Your task to perform on an android device: open app "File Manager" (install if not already installed) Image 0: 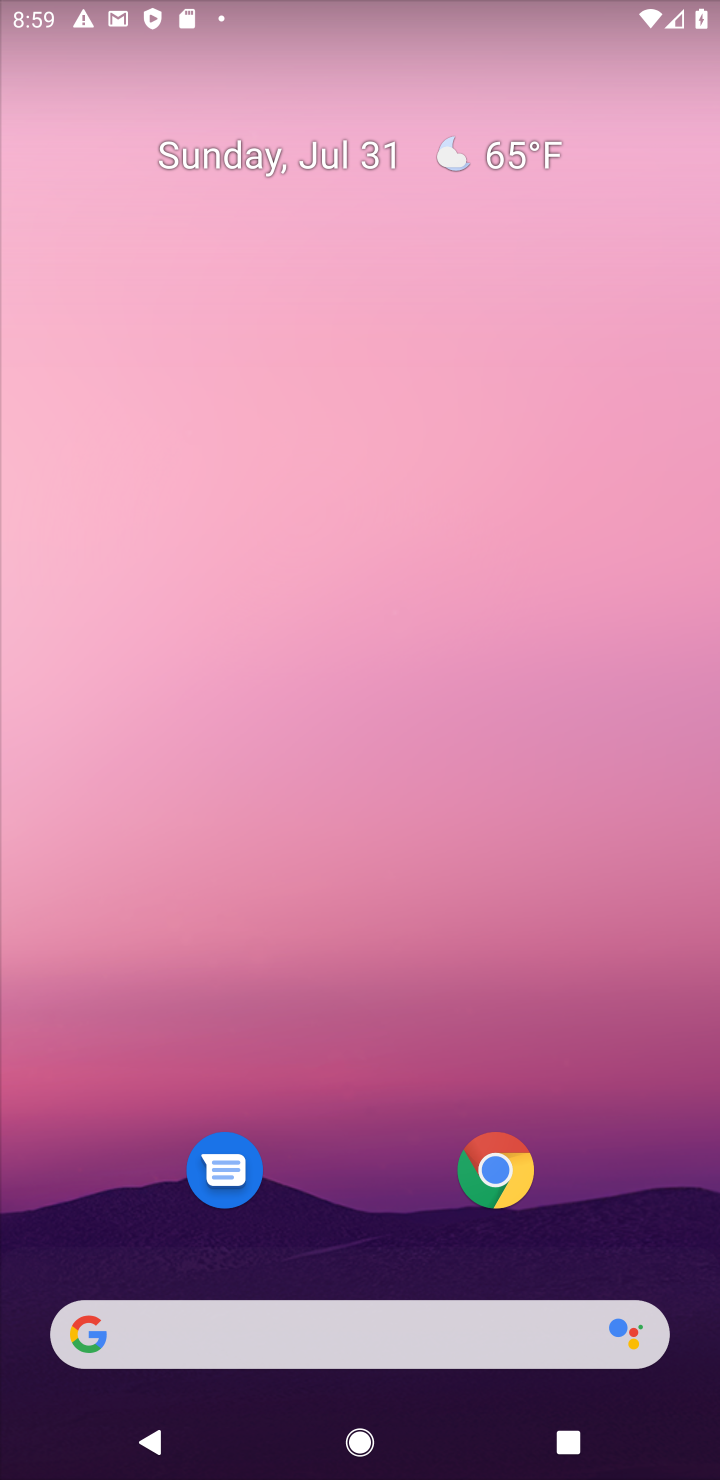
Step 0: drag from (395, 1272) to (598, 102)
Your task to perform on an android device: open app "File Manager" (install if not already installed) Image 1: 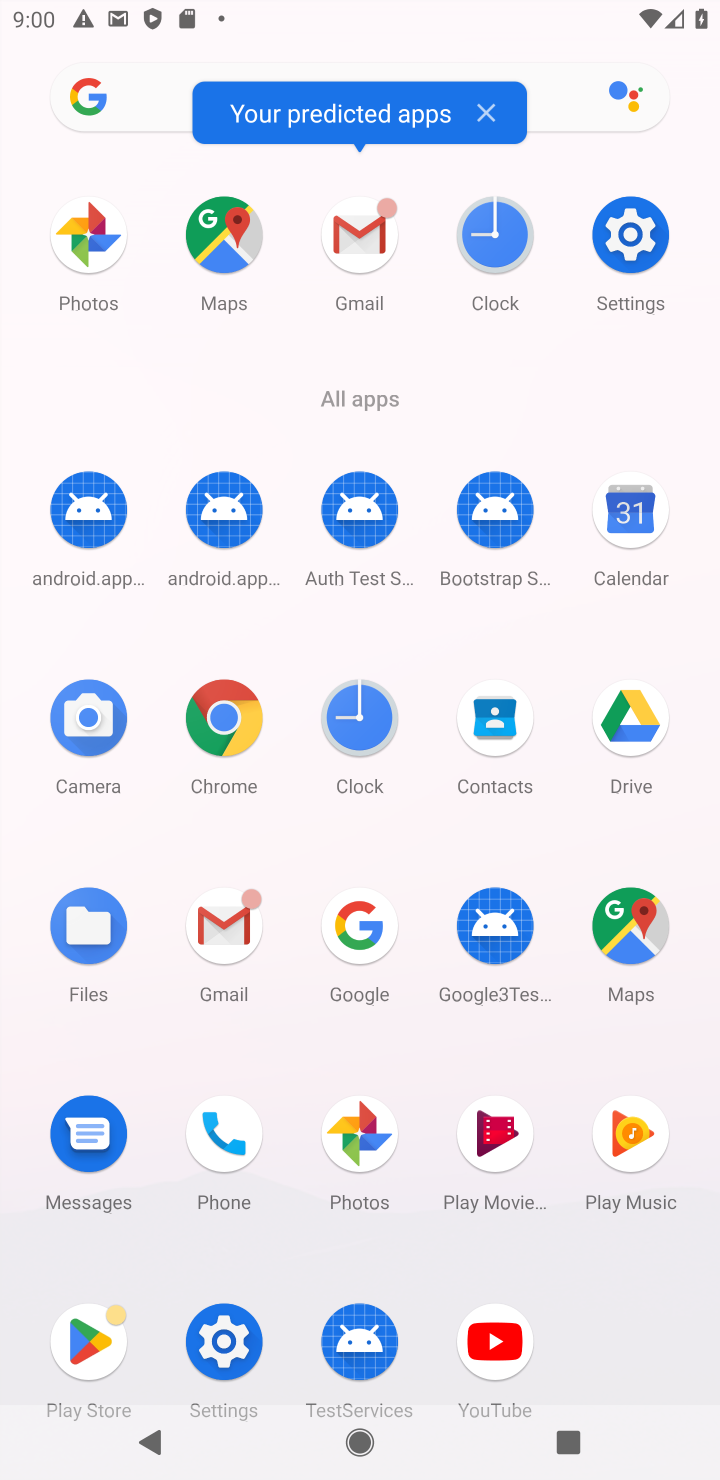
Step 1: click (80, 1303)
Your task to perform on an android device: open app "File Manager" (install if not already installed) Image 2: 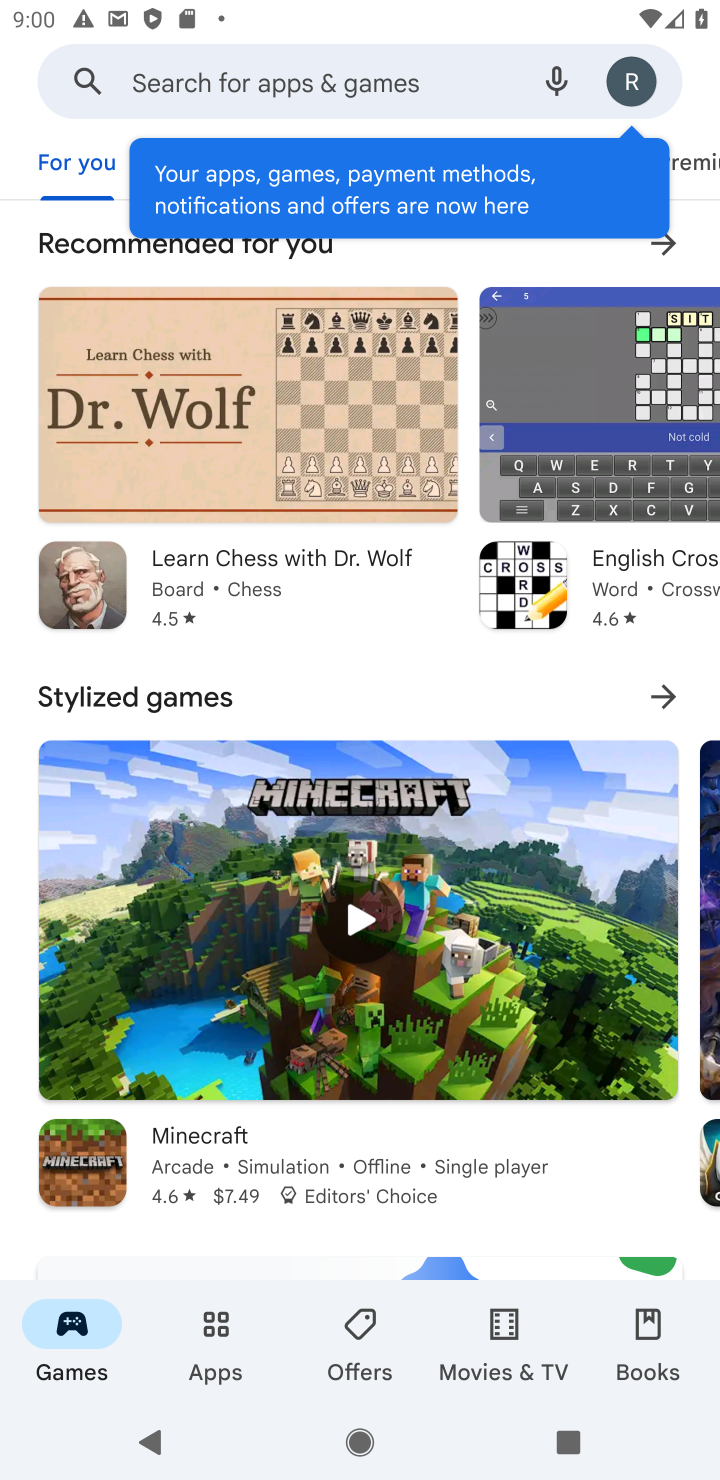
Step 2: click (386, 108)
Your task to perform on an android device: open app "File Manager" (install if not already installed) Image 3: 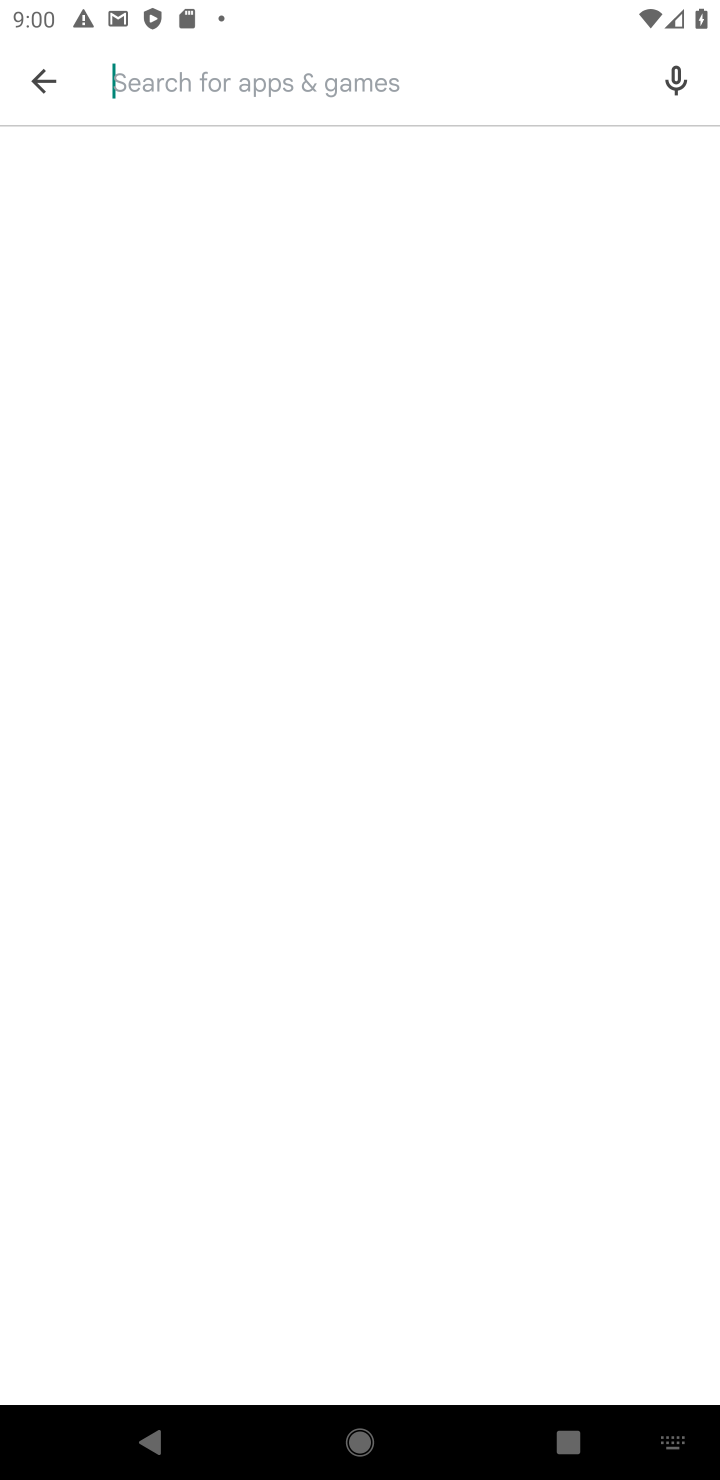
Step 3: type "File Manager"
Your task to perform on an android device: open app "File Manager" (install if not already installed) Image 4: 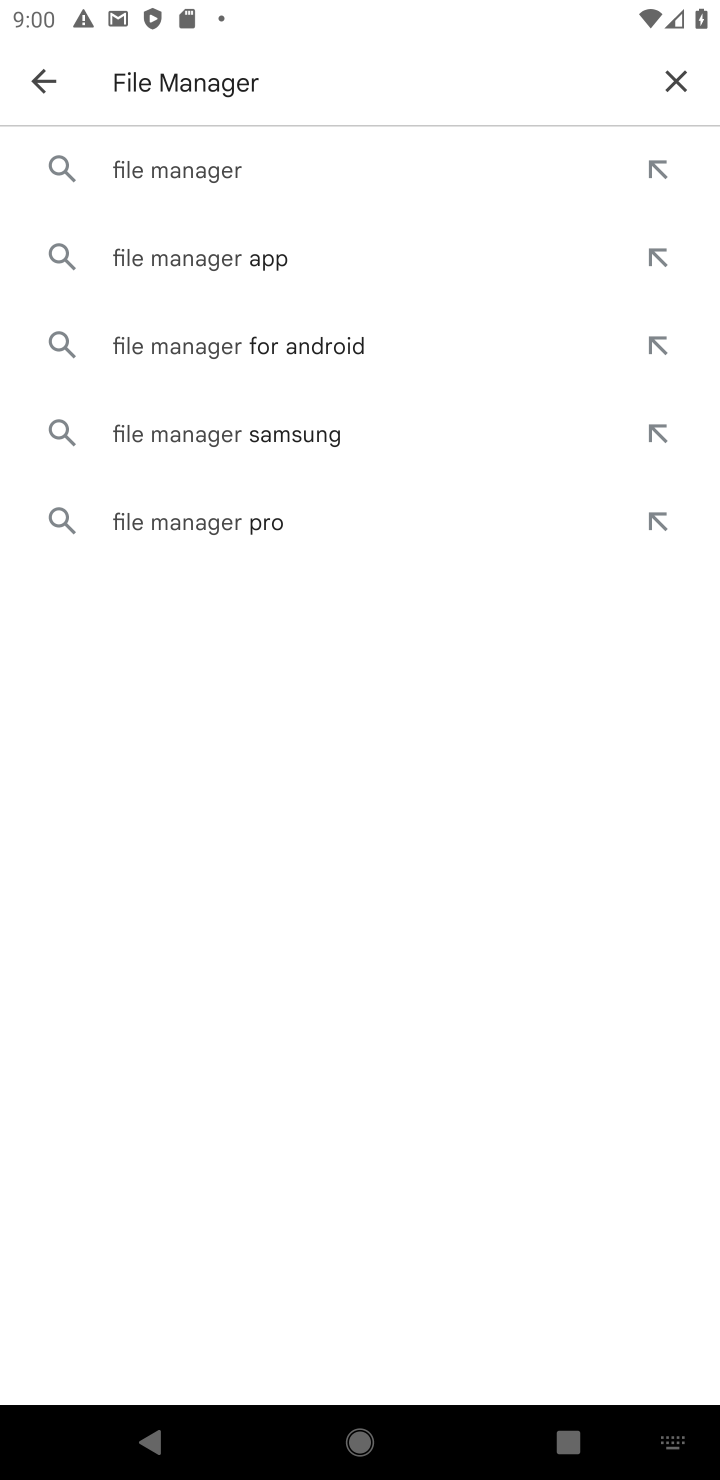
Step 4: click (168, 159)
Your task to perform on an android device: open app "File Manager" (install if not already installed) Image 5: 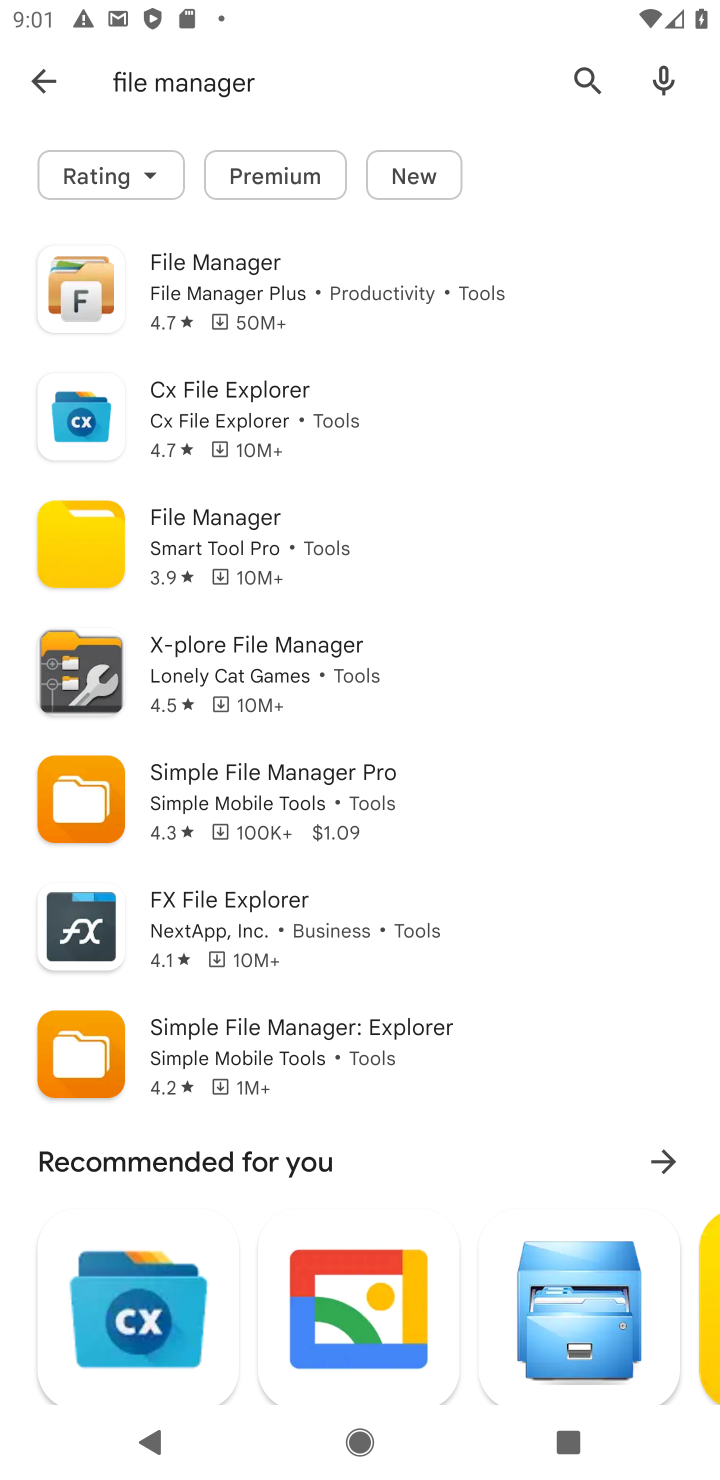
Step 5: click (115, 270)
Your task to perform on an android device: open app "File Manager" (install if not already installed) Image 6: 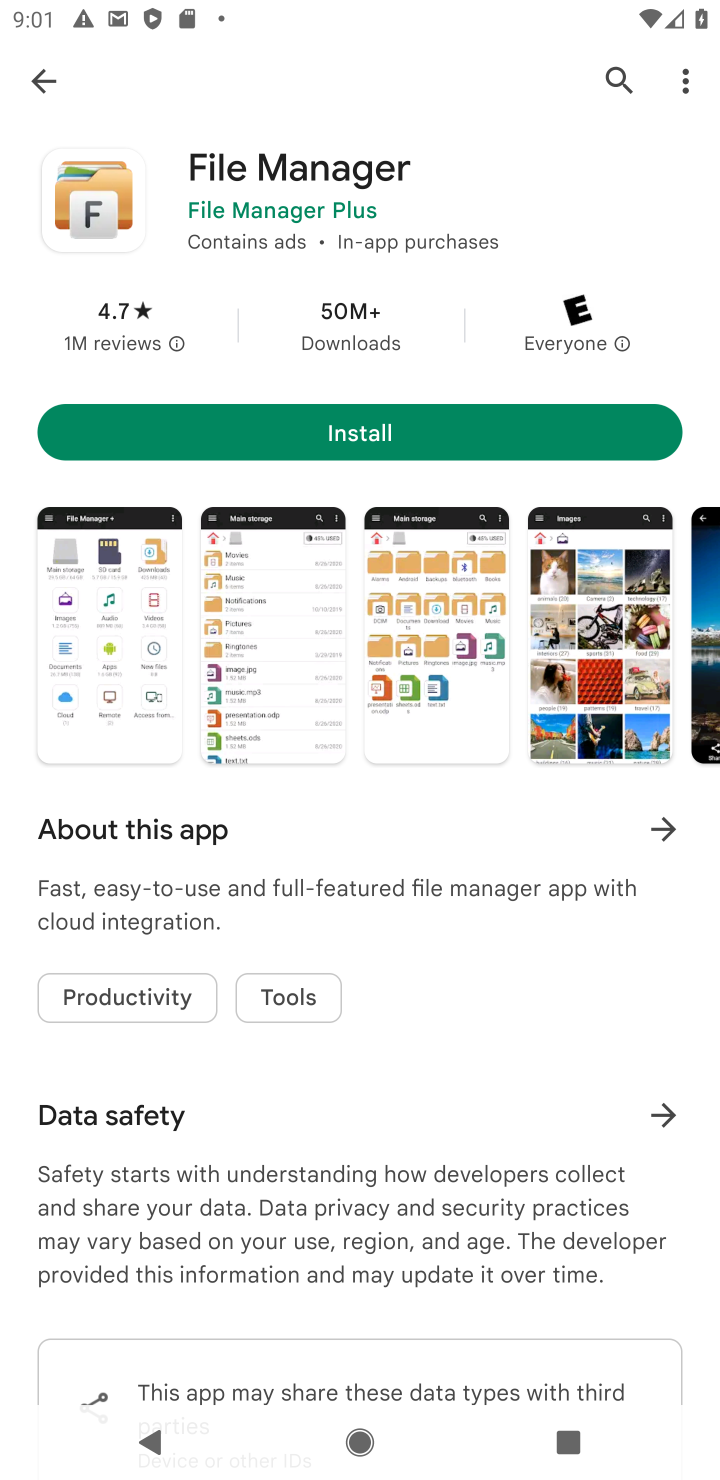
Step 6: click (176, 408)
Your task to perform on an android device: open app "File Manager" (install if not already installed) Image 7: 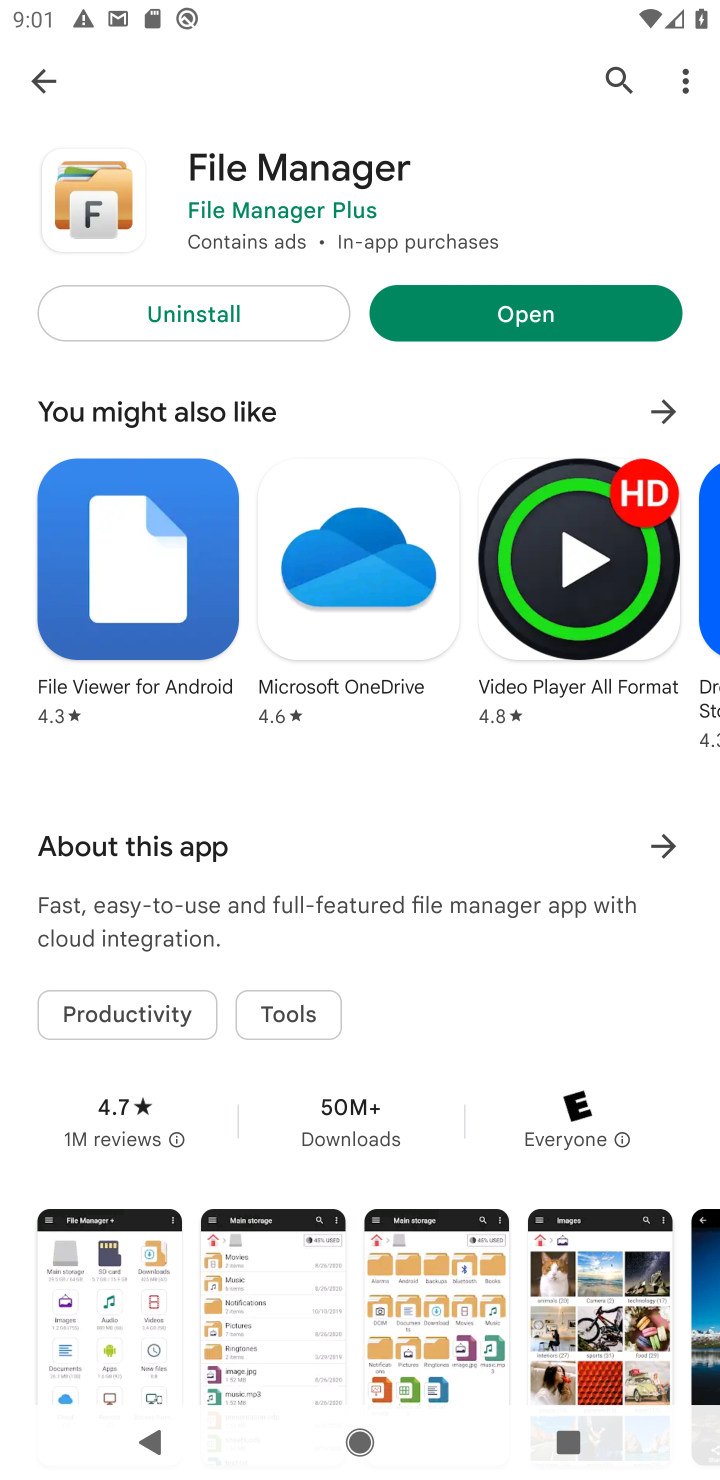
Step 7: click (548, 310)
Your task to perform on an android device: open app "File Manager" (install if not already installed) Image 8: 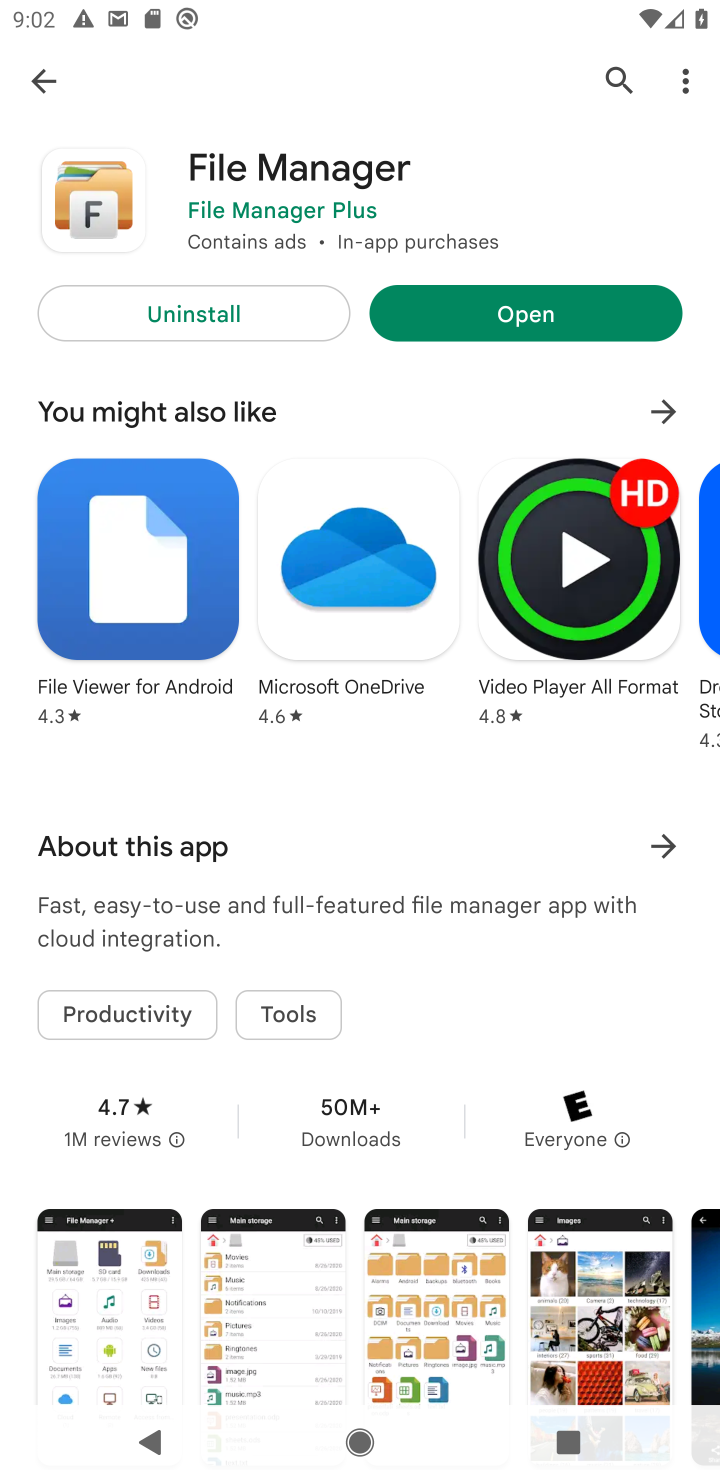
Step 8: task complete